Your task to perform on an android device: Open Chrome and go to settings Image 0: 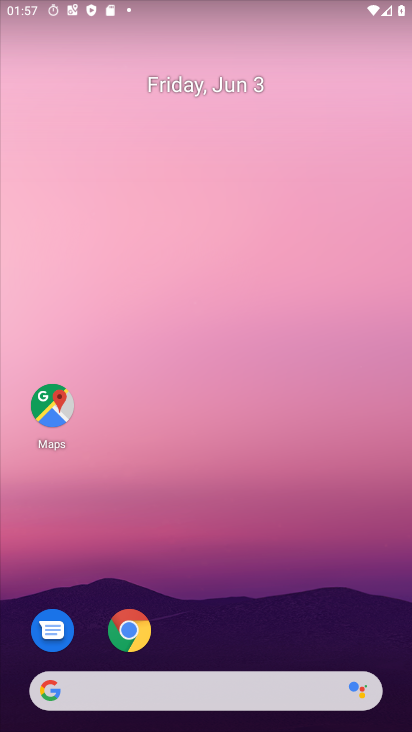
Step 0: drag from (239, 624) to (197, 240)
Your task to perform on an android device: Open Chrome and go to settings Image 1: 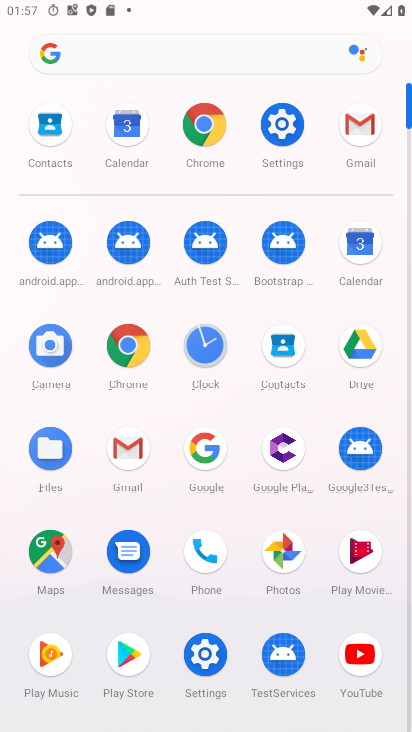
Step 1: click (206, 123)
Your task to perform on an android device: Open Chrome and go to settings Image 2: 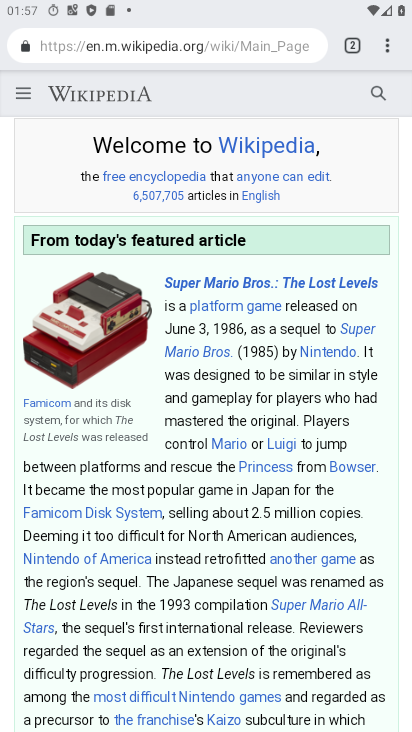
Step 2: click (391, 49)
Your task to perform on an android device: Open Chrome and go to settings Image 3: 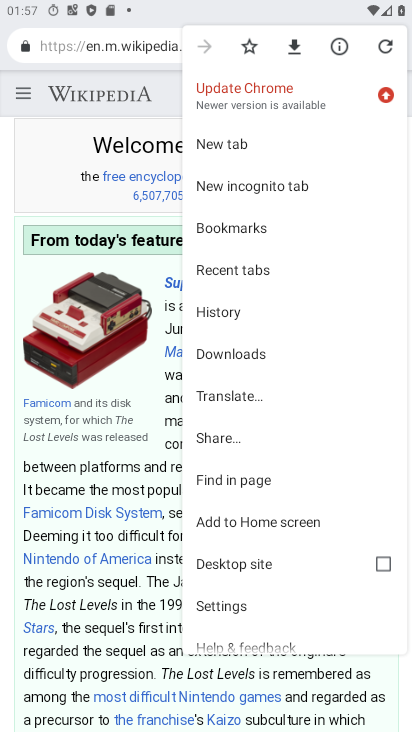
Step 3: click (288, 609)
Your task to perform on an android device: Open Chrome and go to settings Image 4: 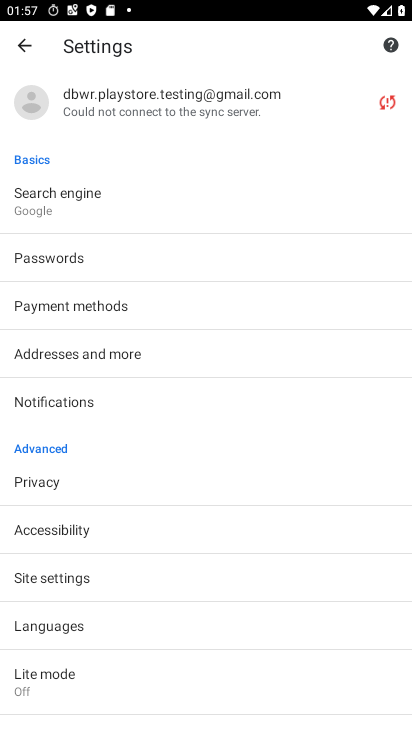
Step 4: task complete